Your task to perform on an android device: Open Google Chrome and open the bookmarks view Image 0: 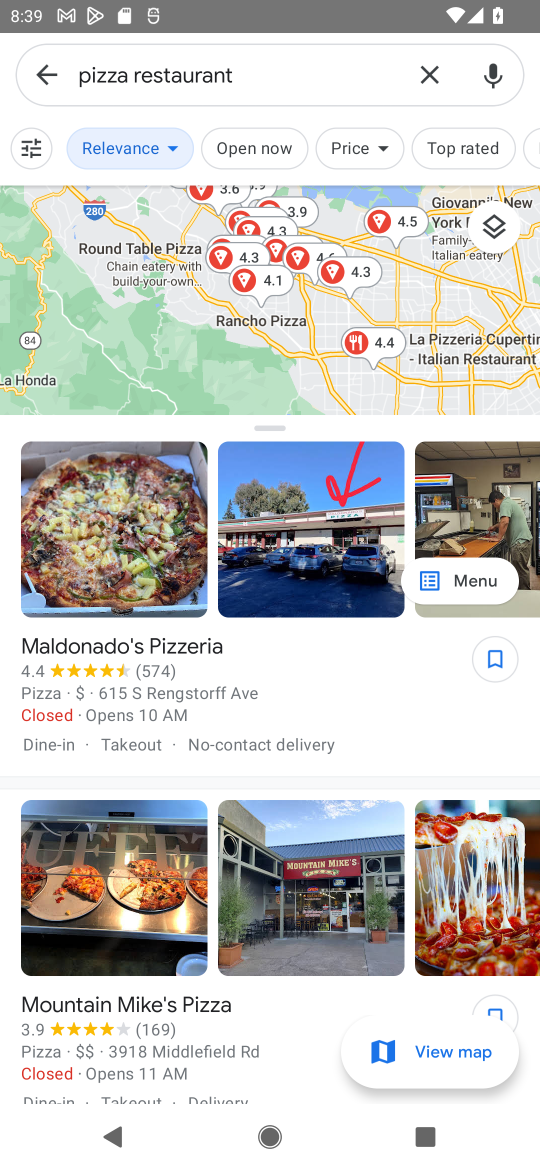
Step 0: press home button
Your task to perform on an android device: Open Google Chrome and open the bookmarks view Image 1: 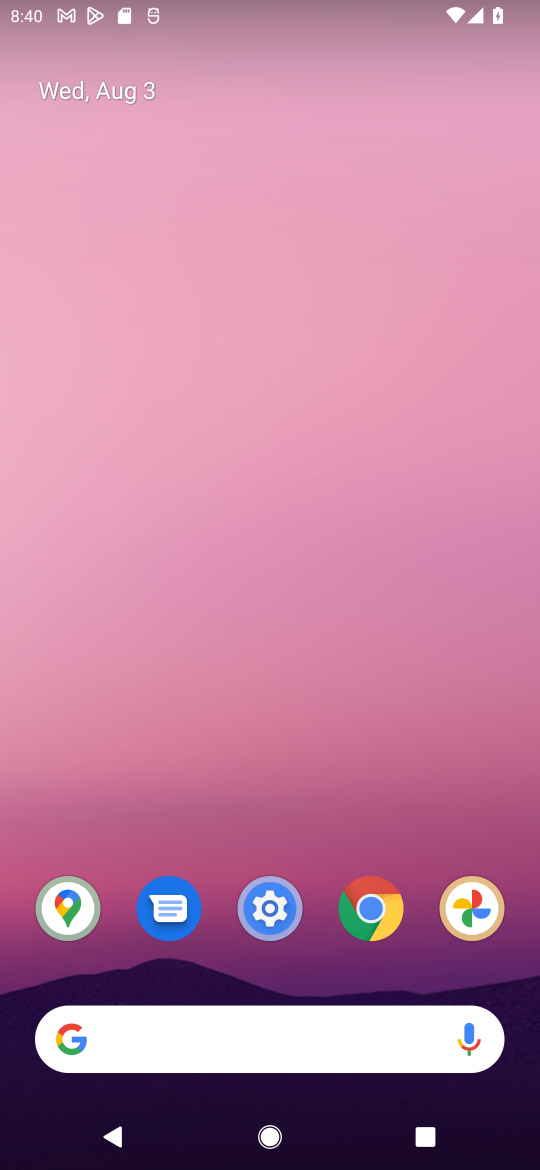
Step 1: click (370, 927)
Your task to perform on an android device: Open Google Chrome and open the bookmarks view Image 2: 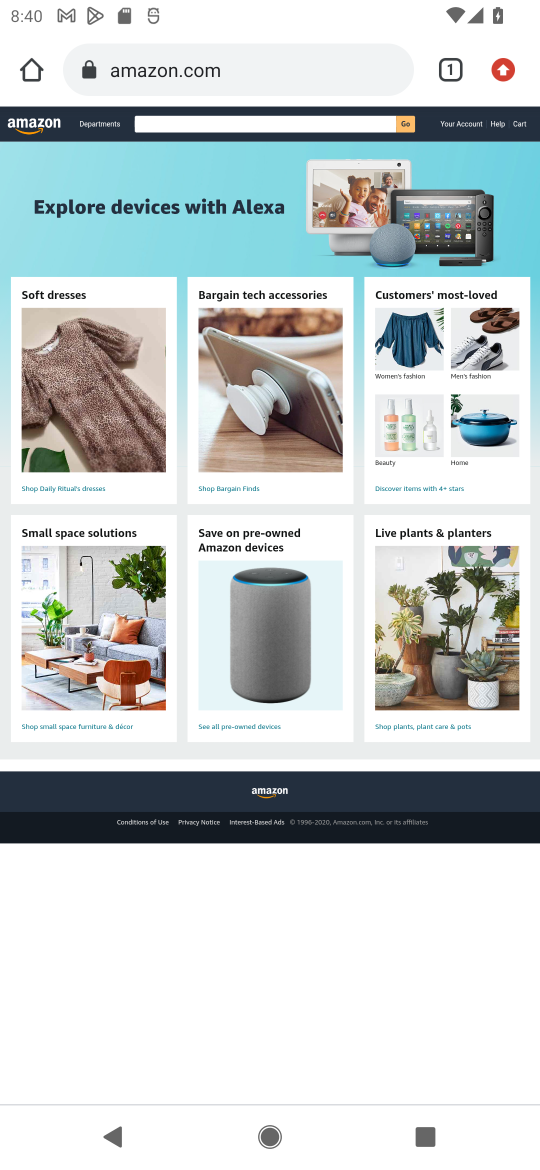
Step 2: drag from (501, 72) to (378, 471)
Your task to perform on an android device: Open Google Chrome and open the bookmarks view Image 3: 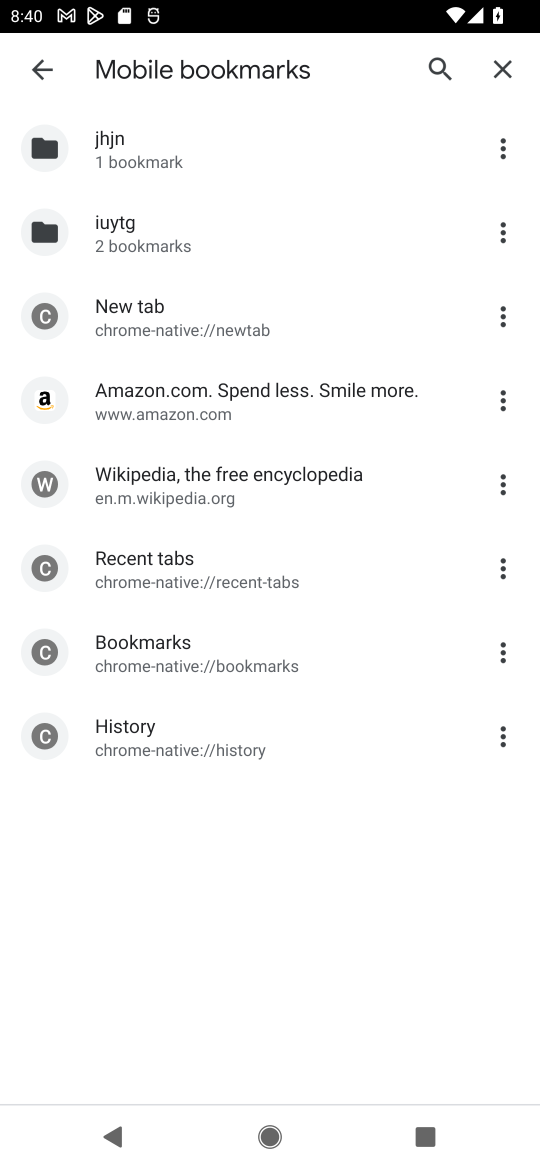
Step 3: click (174, 415)
Your task to perform on an android device: Open Google Chrome and open the bookmarks view Image 4: 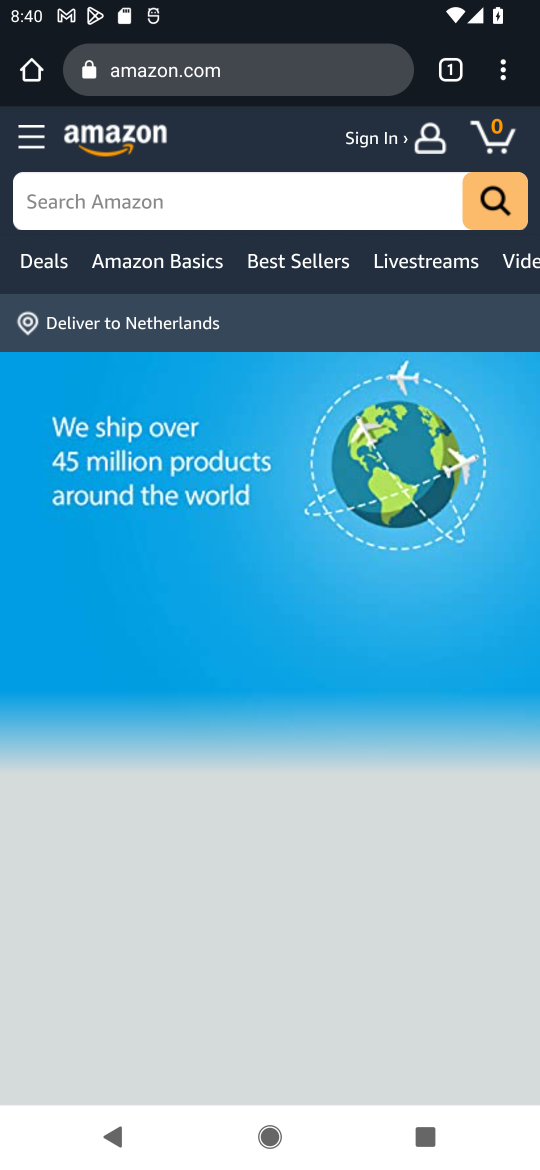
Step 4: task complete